Your task to perform on an android device: open the mobile data screen to see how much data has been used Image 0: 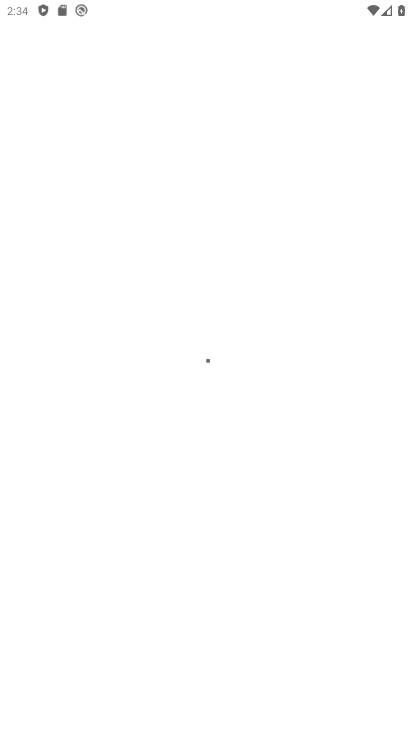
Step 0: press home button
Your task to perform on an android device: open the mobile data screen to see how much data has been used Image 1: 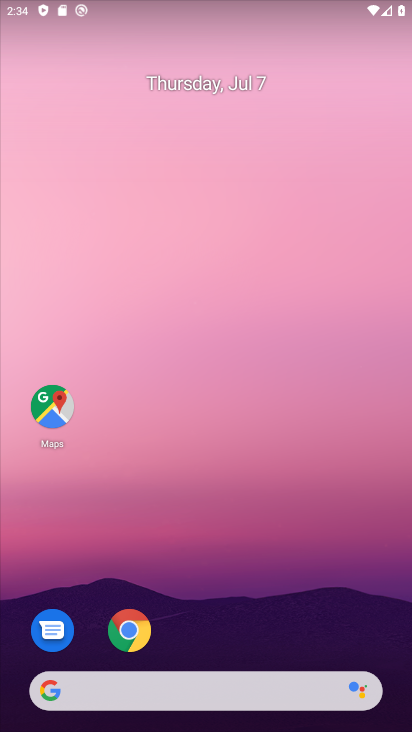
Step 1: drag from (254, 641) to (250, 287)
Your task to perform on an android device: open the mobile data screen to see how much data has been used Image 2: 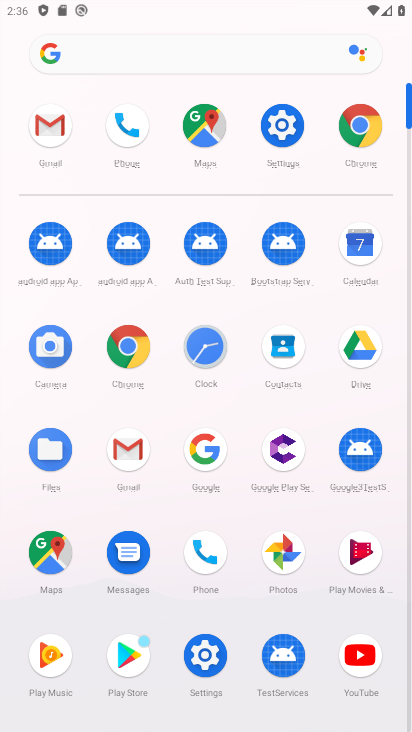
Step 2: click (285, 121)
Your task to perform on an android device: open the mobile data screen to see how much data has been used Image 3: 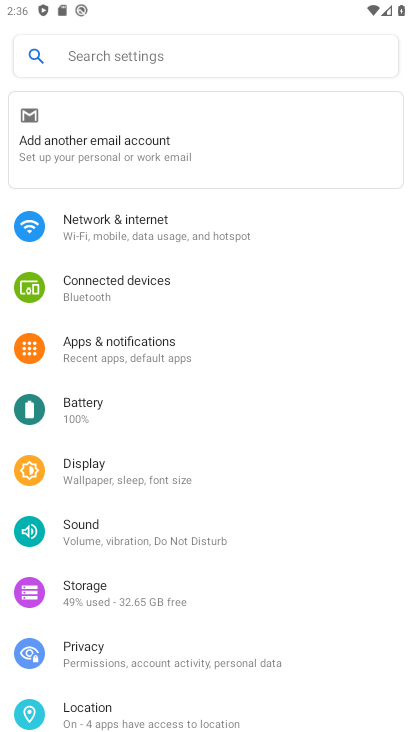
Step 3: click (186, 231)
Your task to perform on an android device: open the mobile data screen to see how much data has been used Image 4: 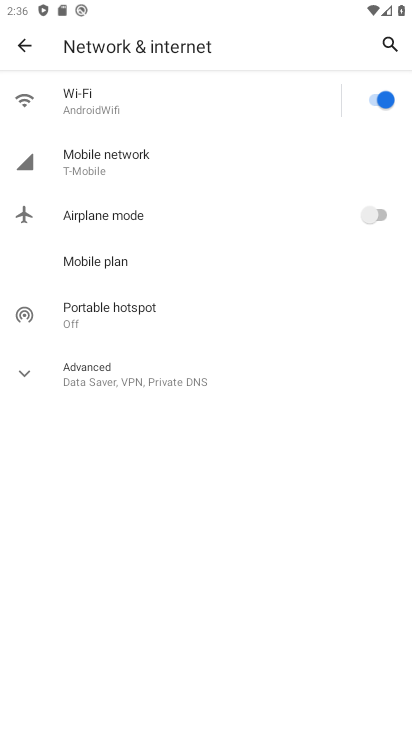
Step 4: click (144, 152)
Your task to perform on an android device: open the mobile data screen to see how much data has been used Image 5: 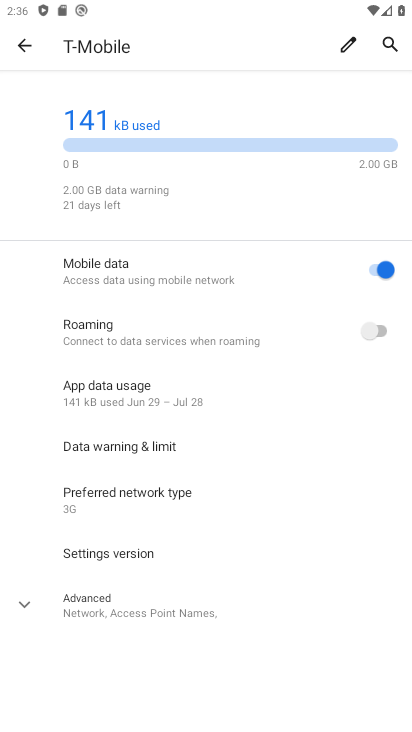
Step 5: click (215, 277)
Your task to perform on an android device: open the mobile data screen to see how much data has been used Image 6: 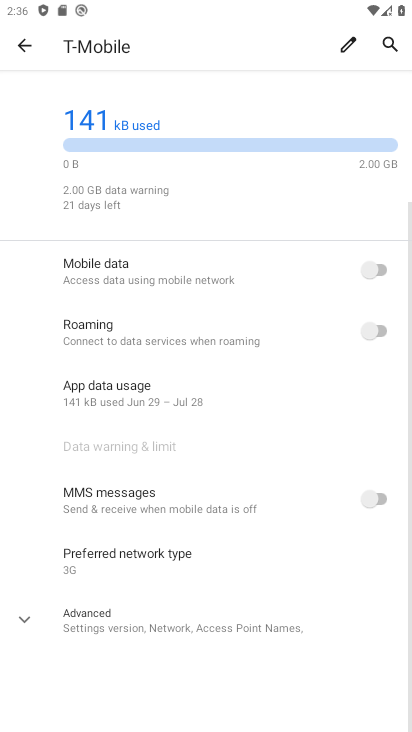
Step 6: click (215, 277)
Your task to perform on an android device: open the mobile data screen to see how much data has been used Image 7: 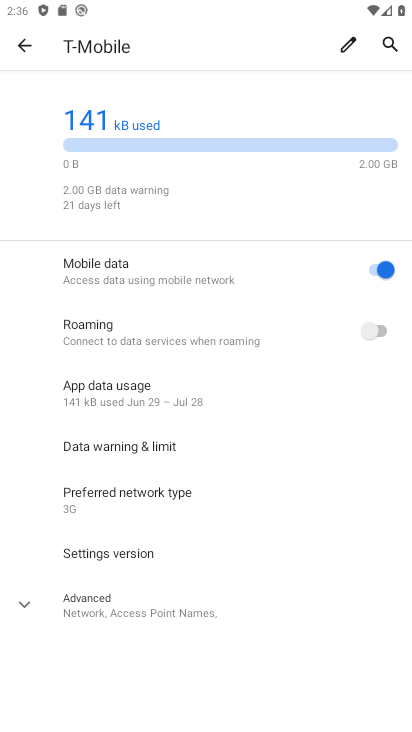
Step 7: click (215, 277)
Your task to perform on an android device: open the mobile data screen to see how much data has been used Image 8: 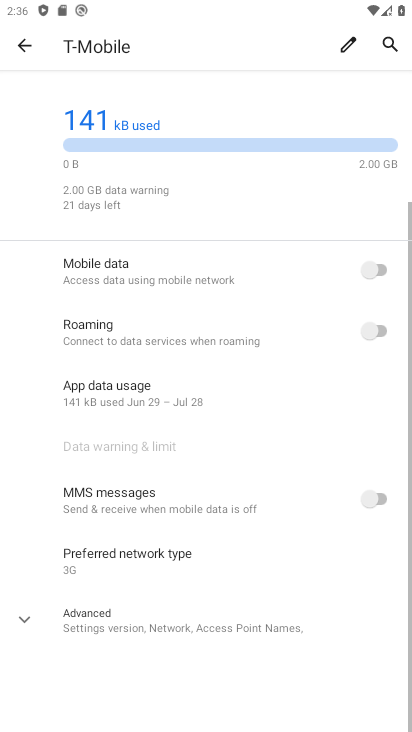
Step 8: task complete